Your task to perform on an android device: open a bookmark in the chrome app Image 0: 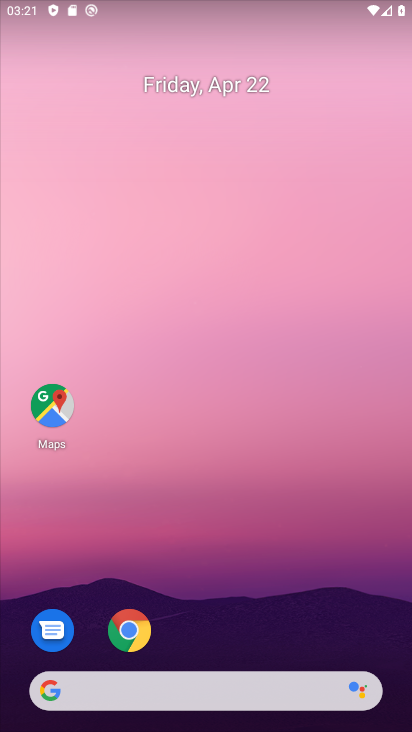
Step 0: click (136, 634)
Your task to perform on an android device: open a bookmark in the chrome app Image 1: 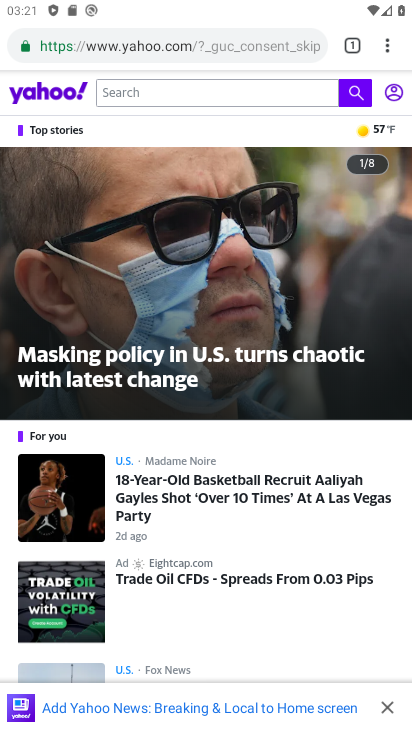
Step 1: click (392, 46)
Your task to perform on an android device: open a bookmark in the chrome app Image 2: 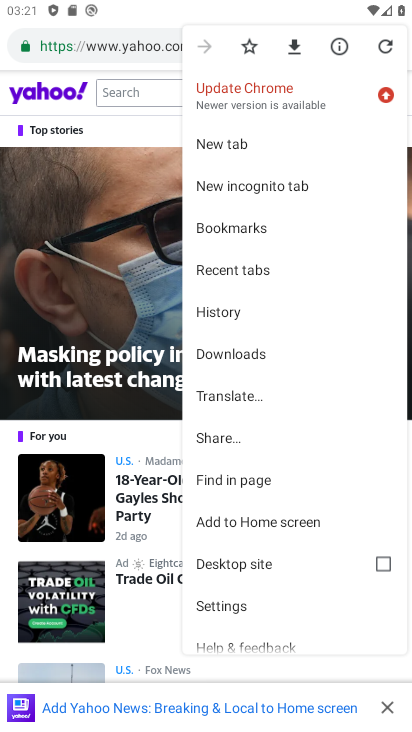
Step 2: click (247, 233)
Your task to perform on an android device: open a bookmark in the chrome app Image 3: 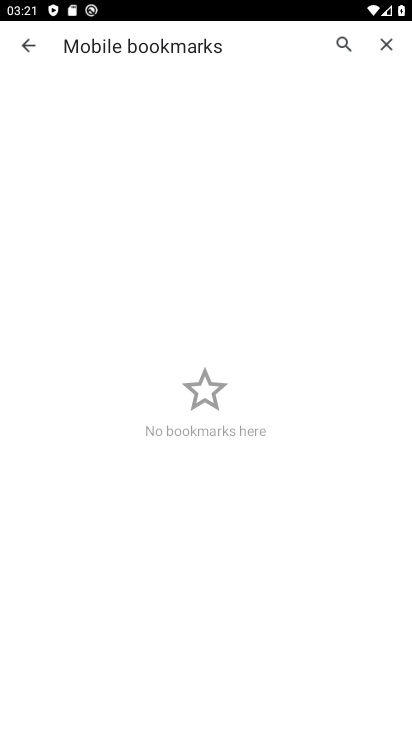
Step 3: task complete